Your task to perform on an android device: clear history in the chrome app Image 0: 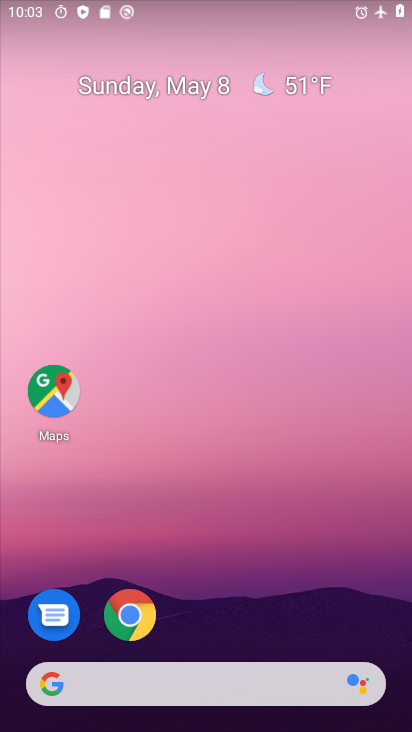
Step 0: click (112, 626)
Your task to perform on an android device: clear history in the chrome app Image 1: 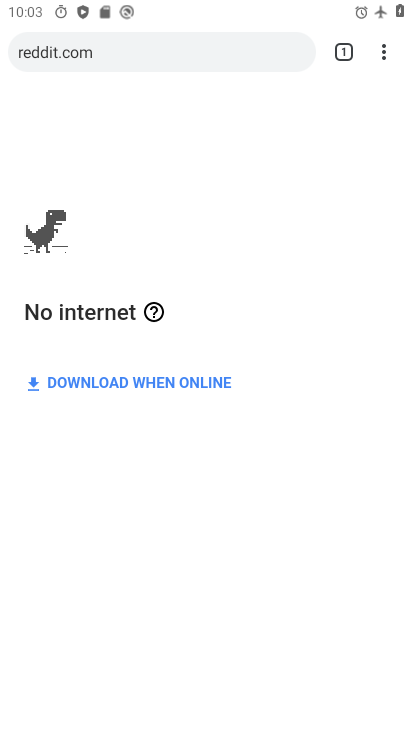
Step 1: task complete